Your task to perform on an android device: change the clock style Image 0: 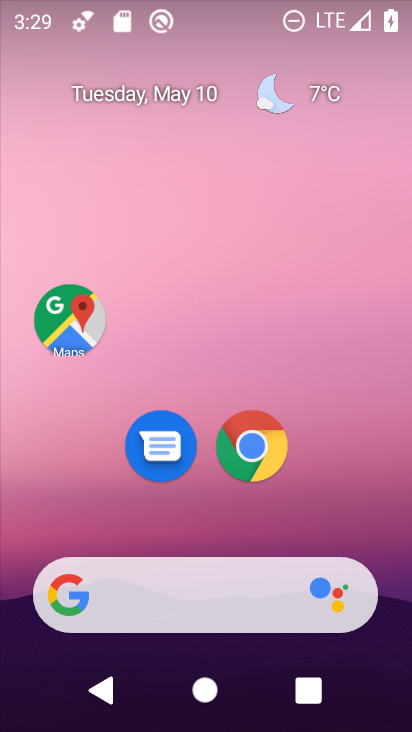
Step 0: drag from (333, 455) to (272, 43)
Your task to perform on an android device: change the clock style Image 1: 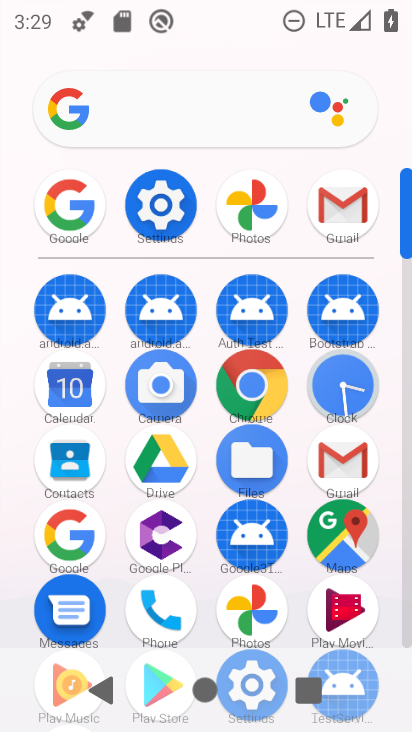
Step 1: click (344, 392)
Your task to perform on an android device: change the clock style Image 2: 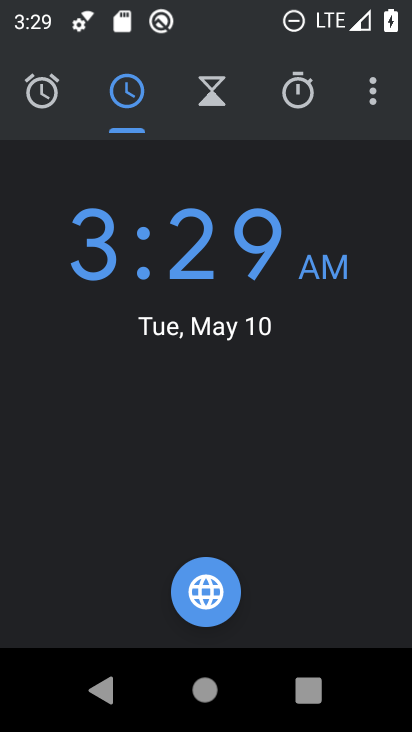
Step 2: click (375, 91)
Your task to perform on an android device: change the clock style Image 3: 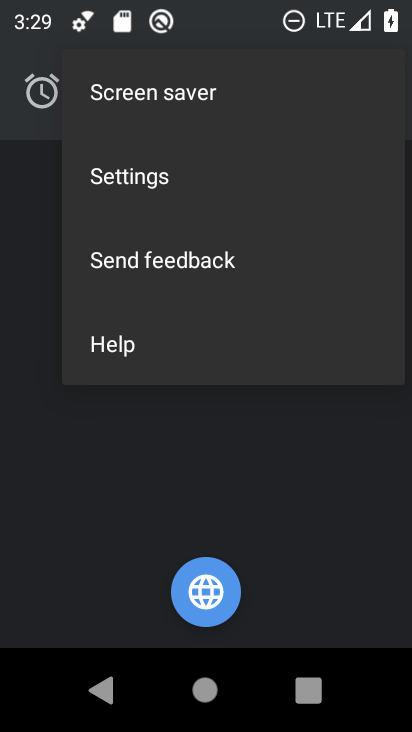
Step 3: click (173, 165)
Your task to perform on an android device: change the clock style Image 4: 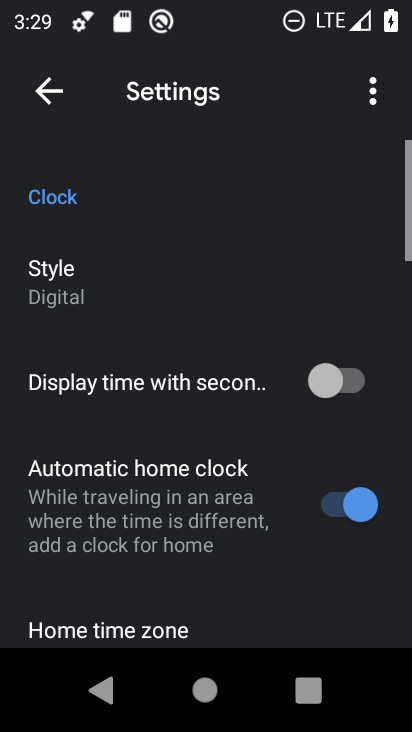
Step 4: click (104, 276)
Your task to perform on an android device: change the clock style Image 5: 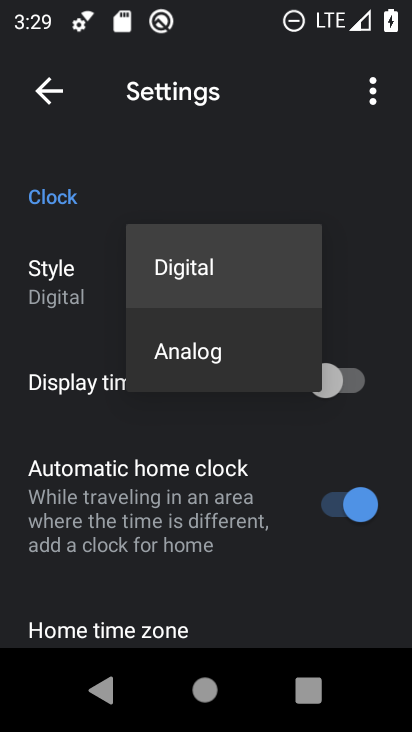
Step 5: click (224, 351)
Your task to perform on an android device: change the clock style Image 6: 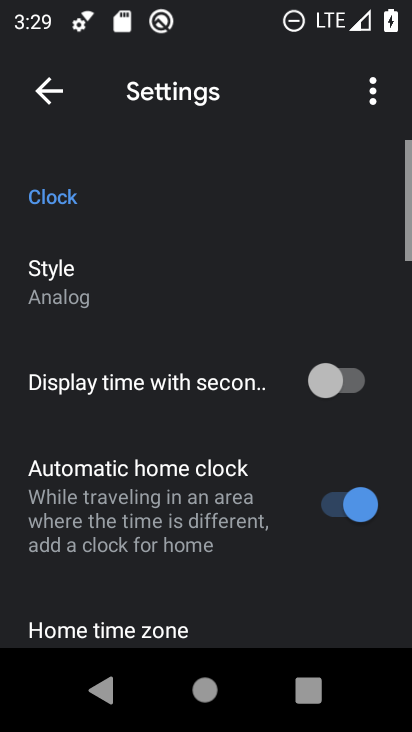
Step 6: task complete